Your task to perform on an android device: Open Chrome and go to settings Image 0: 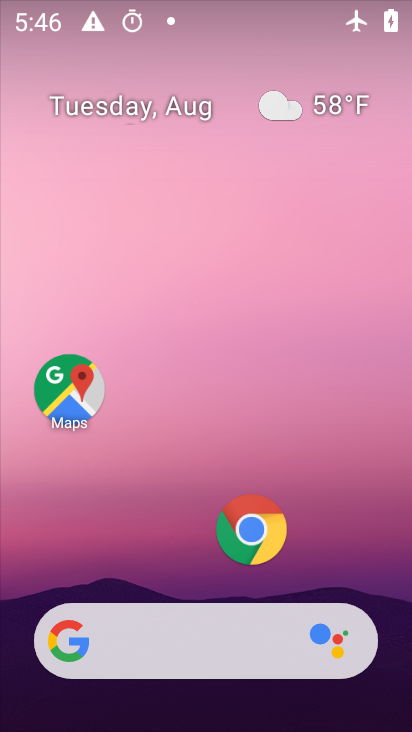
Step 0: click (259, 534)
Your task to perform on an android device: Open Chrome and go to settings Image 1: 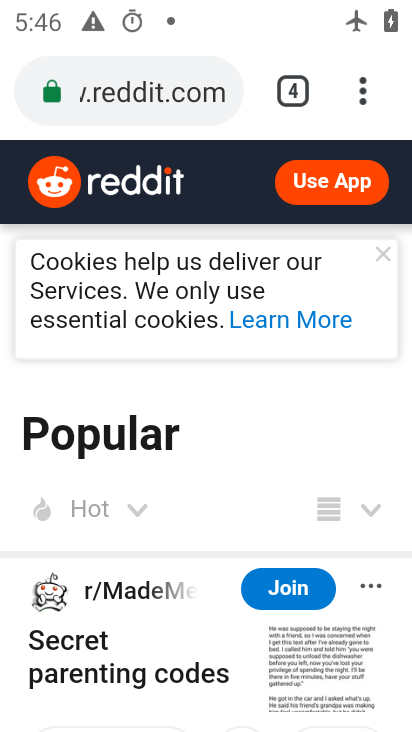
Step 1: click (367, 83)
Your task to perform on an android device: Open Chrome and go to settings Image 2: 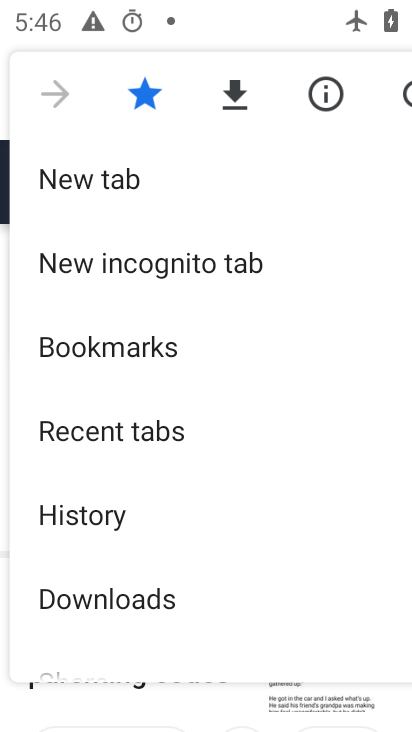
Step 2: drag from (168, 580) to (208, 310)
Your task to perform on an android device: Open Chrome and go to settings Image 3: 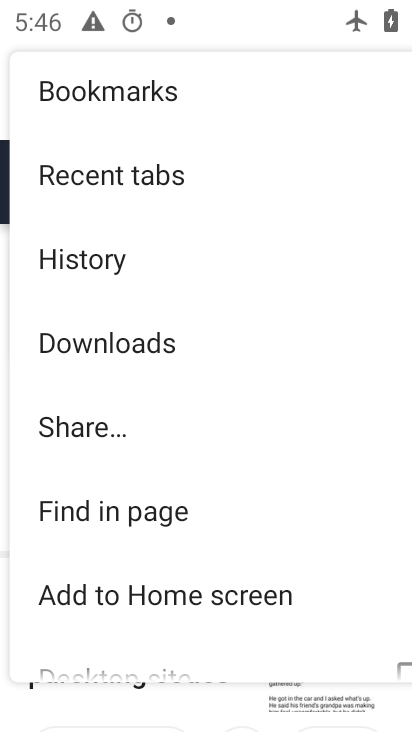
Step 3: drag from (180, 582) to (204, 257)
Your task to perform on an android device: Open Chrome and go to settings Image 4: 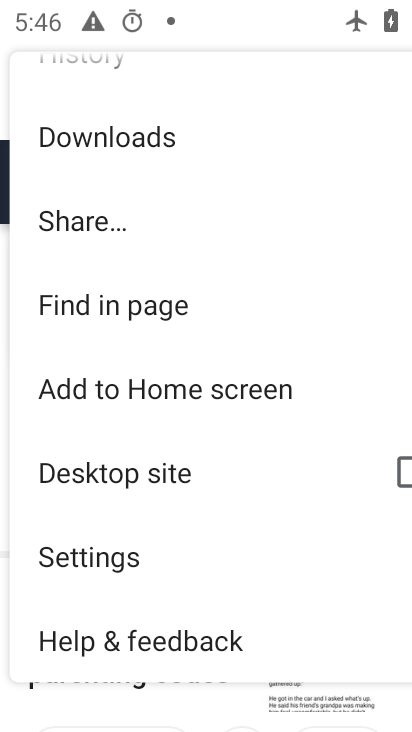
Step 4: click (104, 564)
Your task to perform on an android device: Open Chrome and go to settings Image 5: 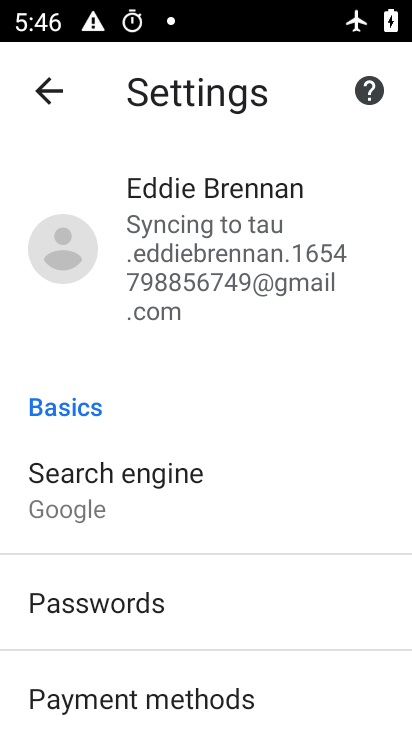
Step 5: task complete